Your task to perform on an android device: Turn on the flashlight Image 0: 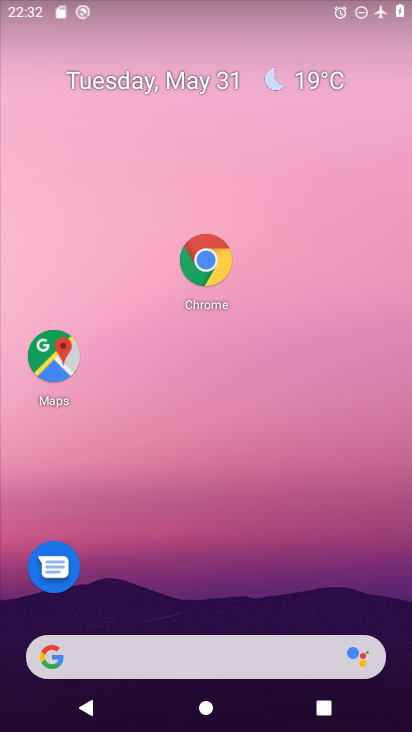
Step 0: drag from (244, 3) to (314, 286)
Your task to perform on an android device: Turn on the flashlight Image 1: 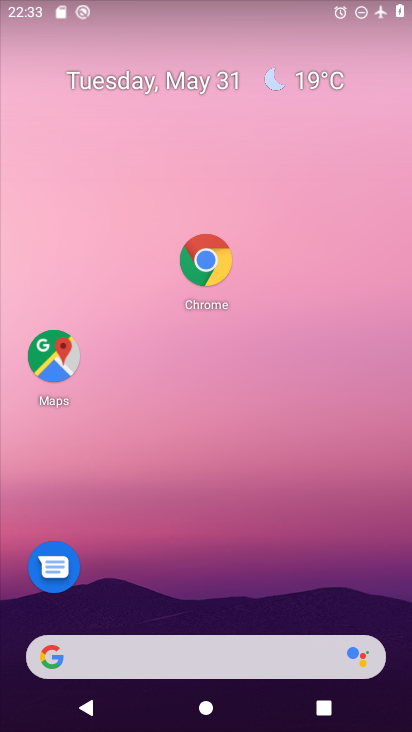
Step 1: task complete